Your task to perform on an android device: add a contact Image 0: 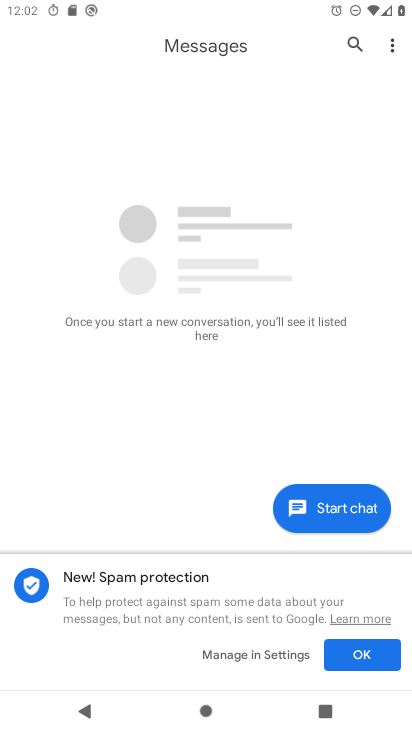
Step 0: press home button
Your task to perform on an android device: add a contact Image 1: 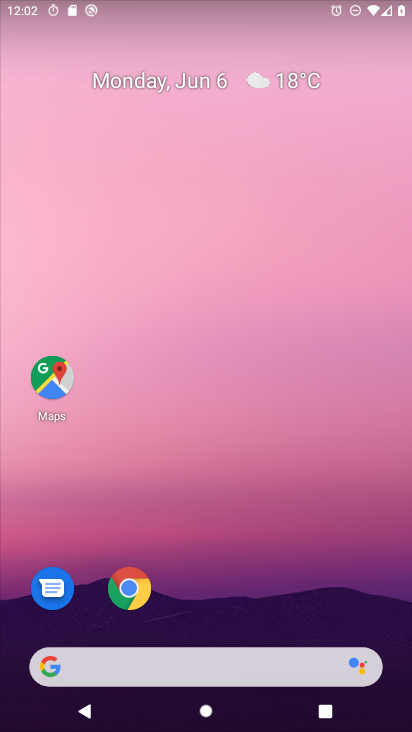
Step 1: drag from (282, 582) to (334, 140)
Your task to perform on an android device: add a contact Image 2: 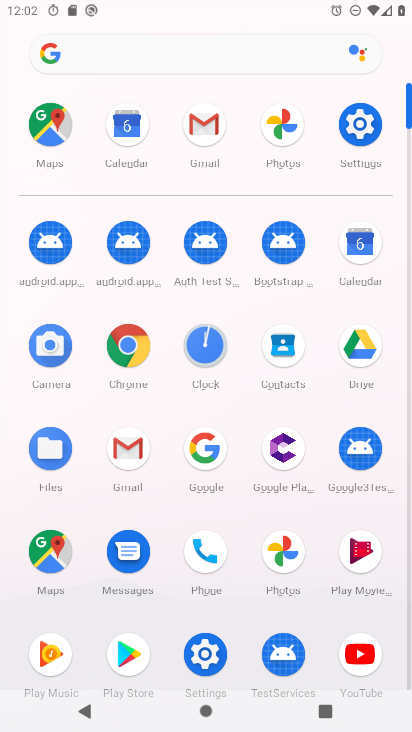
Step 2: click (286, 352)
Your task to perform on an android device: add a contact Image 3: 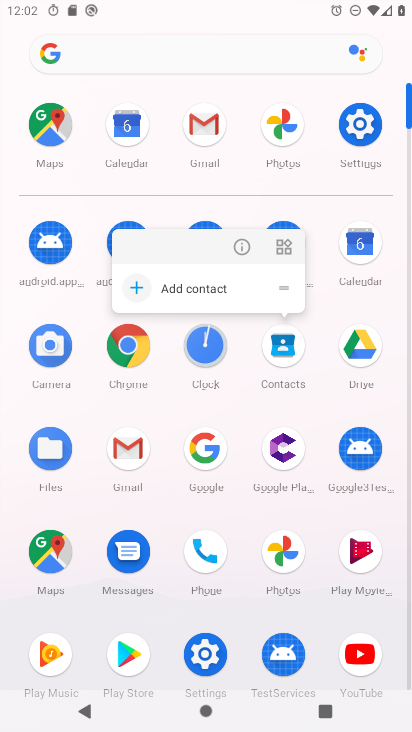
Step 3: click (290, 359)
Your task to perform on an android device: add a contact Image 4: 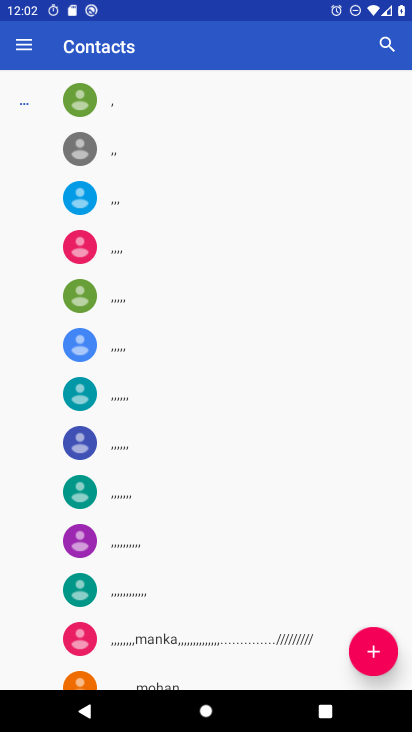
Step 4: click (377, 656)
Your task to perform on an android device: add a contact Image 5: 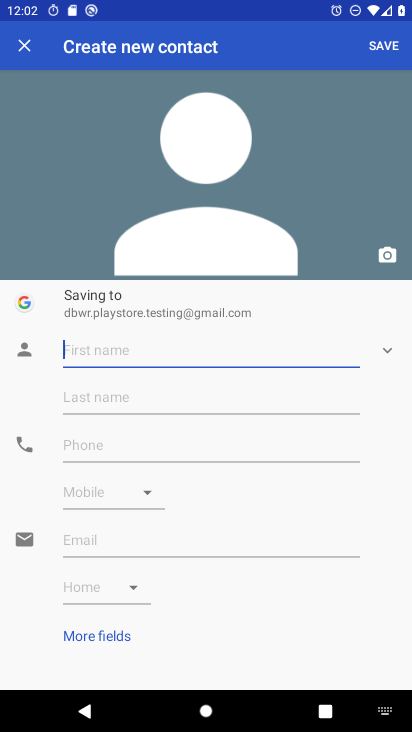
Step 5: click (116, 351)
Your task to perform on an android device: add a contact Image 6: 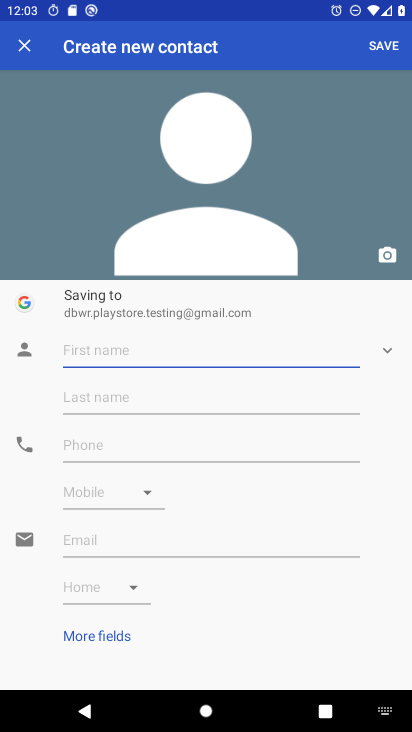
Step 6: type "lovely"
Your task to perform on an android device: add a contact Image 7: 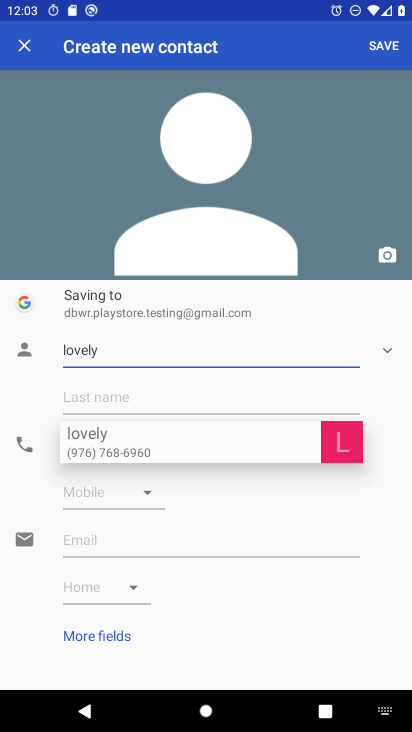
Step 7: click (376, 457)
Your task to perform on an android device: add a contact Image 8: 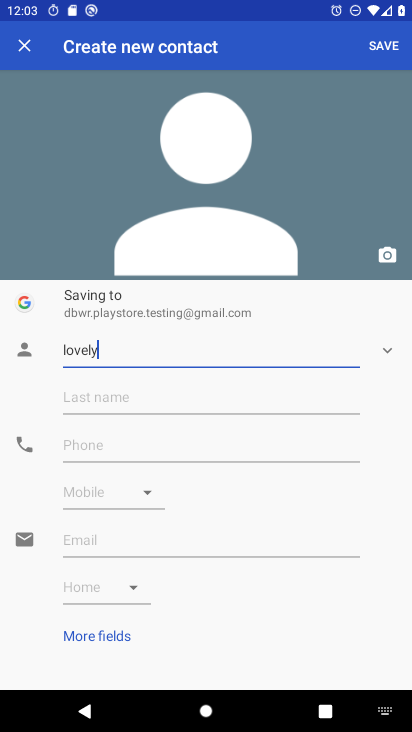
Step 8: click (180, 455)
Your task to perform on an android device: add a contact Image 9: 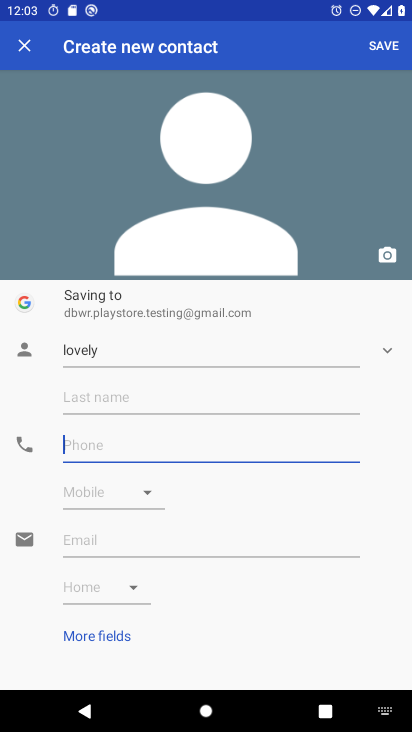
Step 9: type "1234566778"
Your task to perform on an android device: add a contact Image 10: 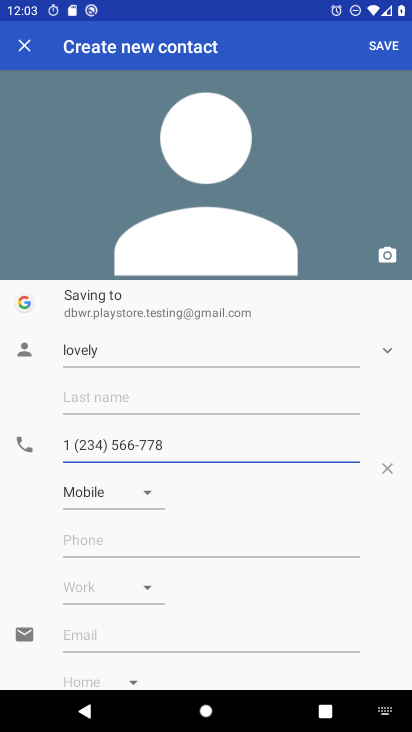
Step 10: click (380, 52)
Your task to perform on an android device: add a contact Image 11: 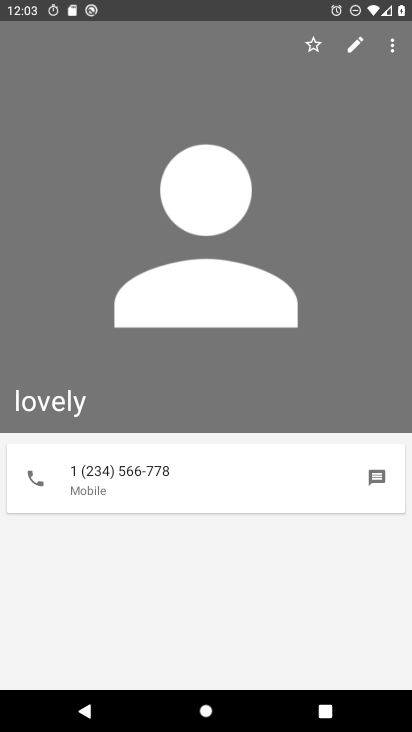
Step 11: task complete